Your task to perform on an android device: Go to Yahoo.com Image 0: 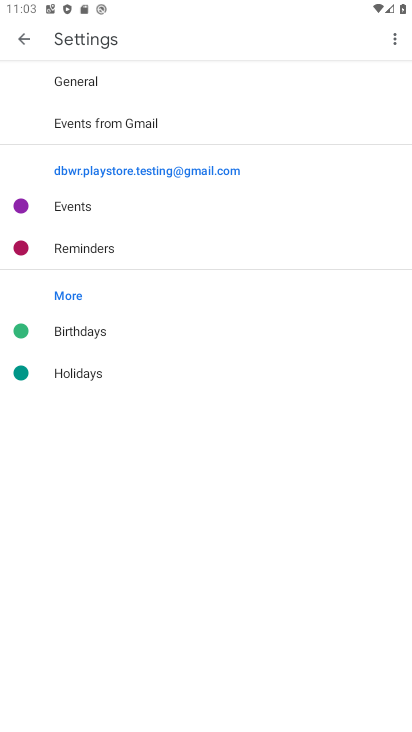
Step 0: press home button
Your task to perform on an android device: Go to Yahoo.com Image 1: 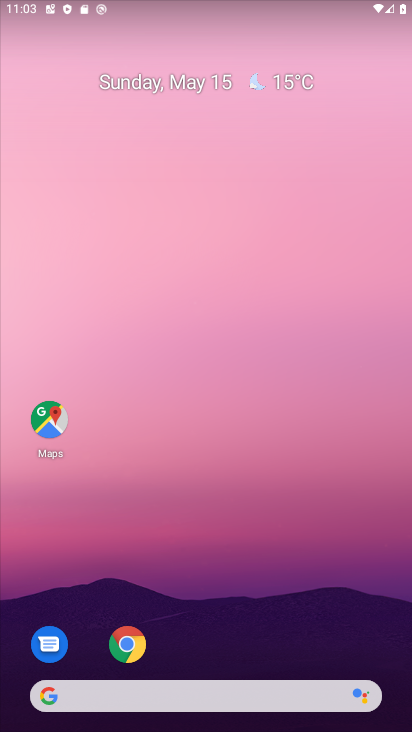
Step 1: click (127, 641)
Your task to perform on an android device: Go to Yahoo.com Image 2: 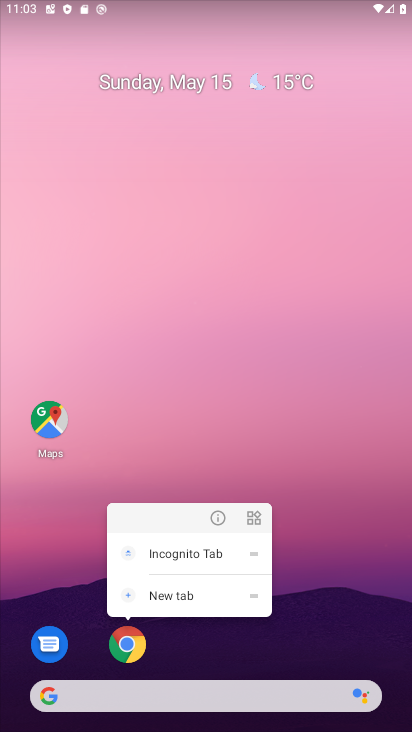
Step 2: click (124, 646)
Your task to perform on an android device: Go to Yahoo.com Image 3: 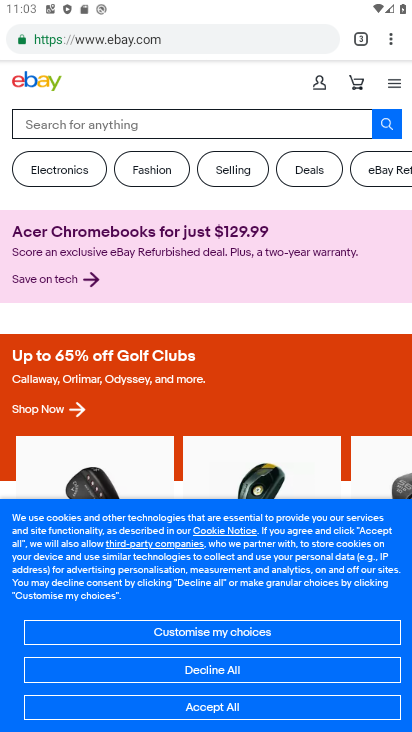
Step 3: click (360, 39)
Your task to perform on an android device: Go to Yahoo.com Image 4: 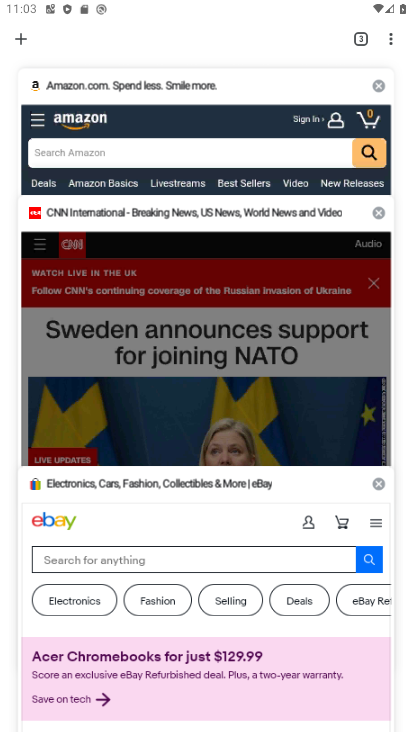
Step 4: click (18, 38)
Your task to perform on an android device: Go to Yahoo.com Image 5: 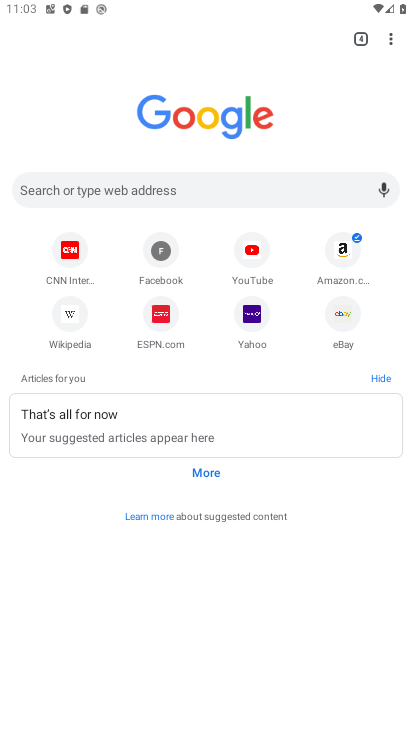
Step 5: click (244, 322)
Your task to perform on an android device: Go to Yahoo.com Image 6: 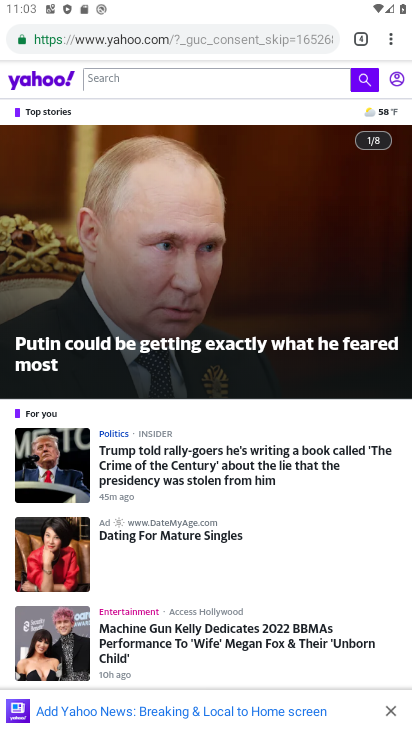
Step 6: task complete